Your task to perform on an android device: When is my next meeting? Image 0: 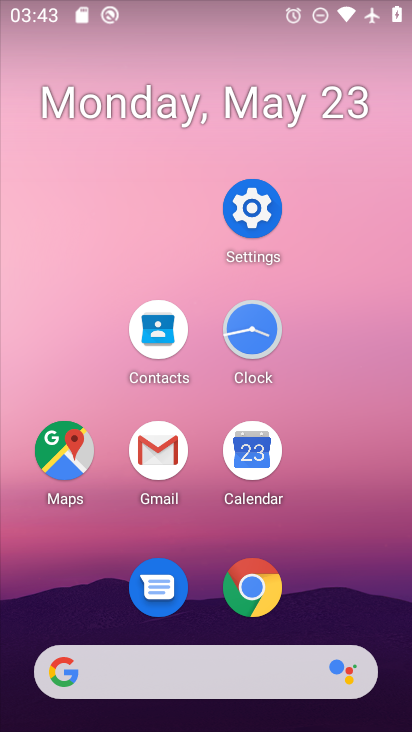
Step 0: click (244, 466)
Your task to perform on an android device: When is my next meeting? Image 1: 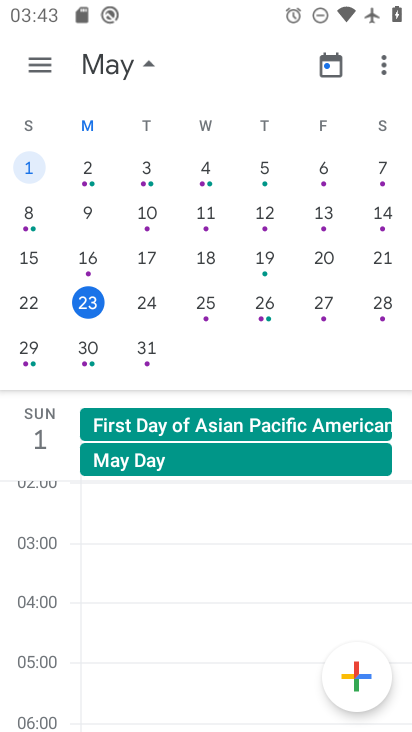
Step 1: click (46, 60)
Your task to perform on an android device: When is my next meeting? Image 2: 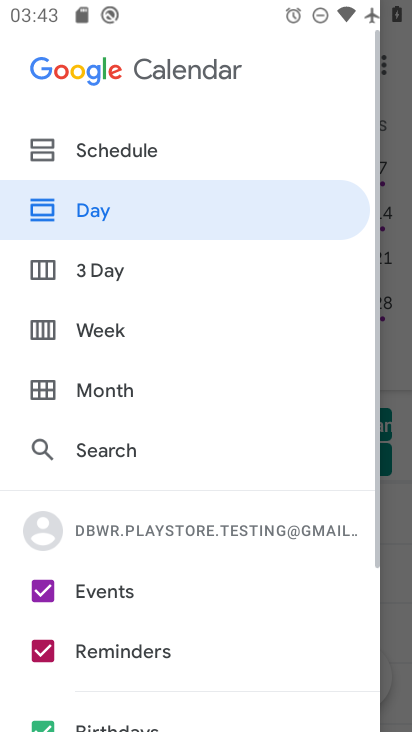
Step 2: click (115, 392)
Your task to perform on an android device: When is my next meeting? Image 3: 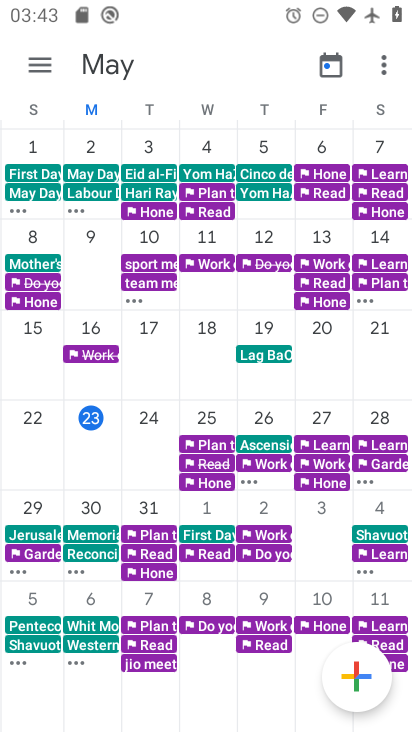
Step 3: task complete